Your task to perform on an android device: see sites visited before in the chrome app Image 0: 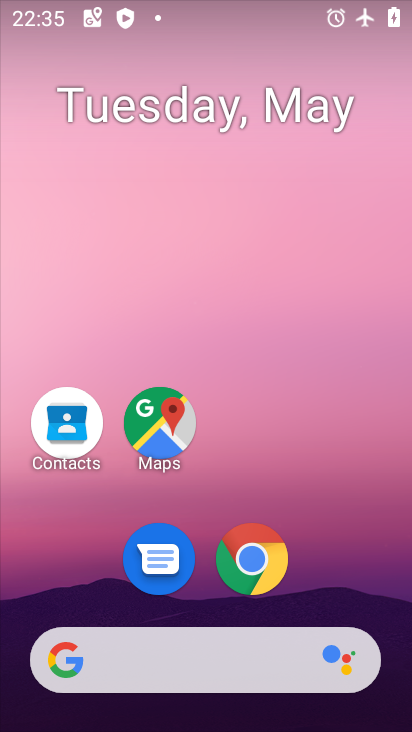
Step 0: click (258, 573)
Your task to perform on an android device: see sites visited before in the chrome app Image 1: 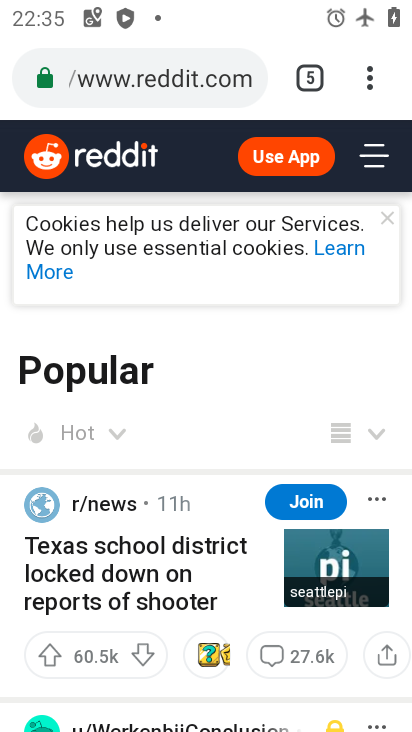
Step 1: click (379, 79)
Your task to perform on an android device: see sites visited before in the chrome app Image 2: 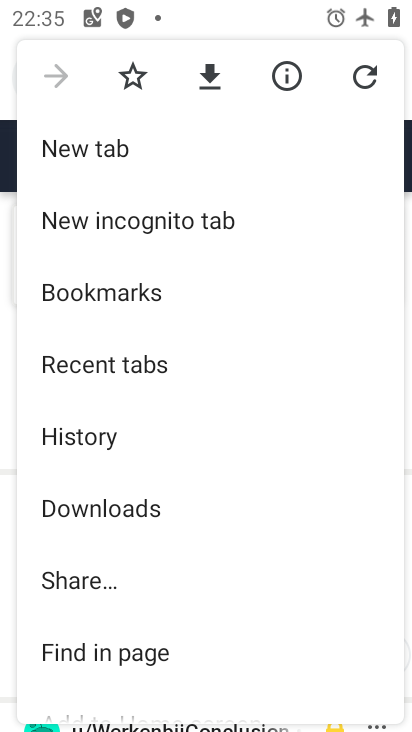
Step 2: click (213, 373)
Your task to perform on an android device: see sites visited before in the chrome app Image 3: 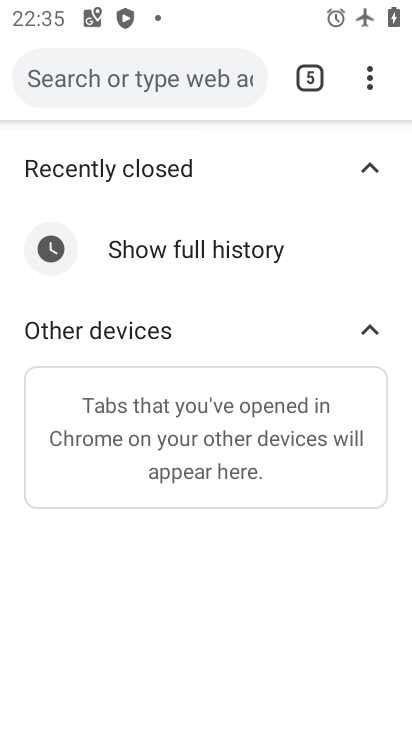
Step 3: task complete